Your task to perform on an android device: Check the news Image 0: 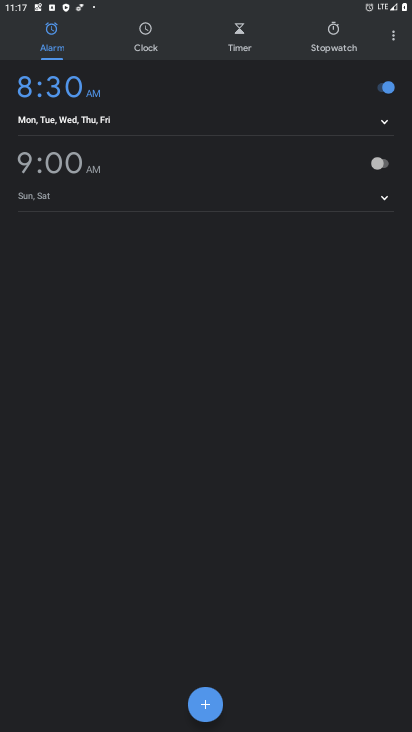
Step 0: press home button
Your task to perform on an android device: Check the news Image 1: 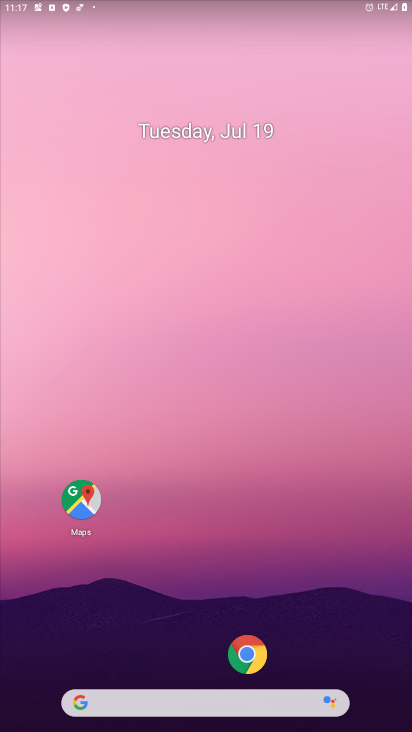
Step 1: click (165, 702)
Your task to perform on an android device: Check the news Image 2: 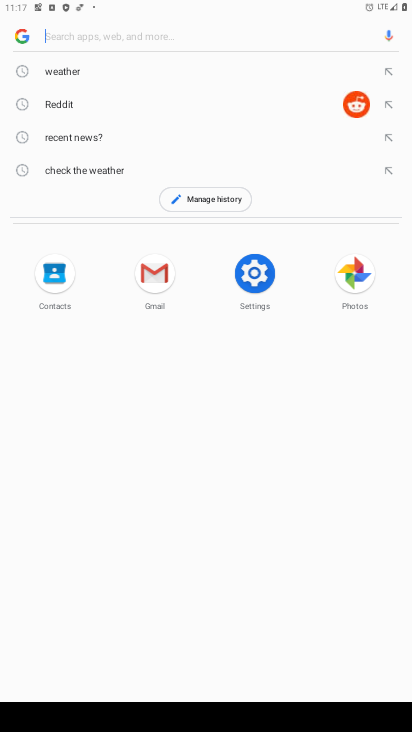
Step 2: click (18, 36)
Your task to perform on an android device: Check the news Image 3: 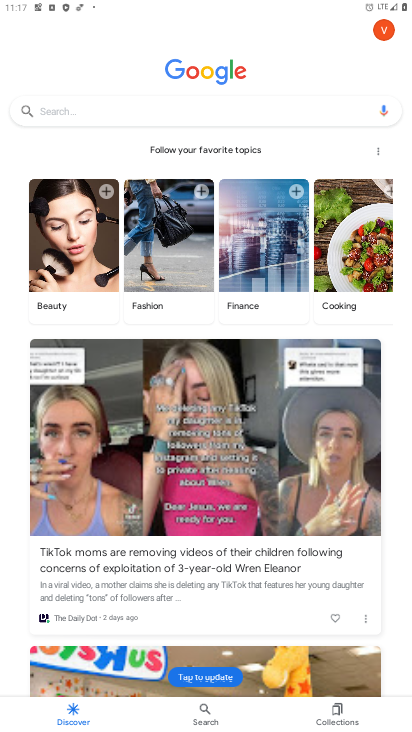
Step 3: task complete